Your task to perform on an android device: Open display settings Image 0: 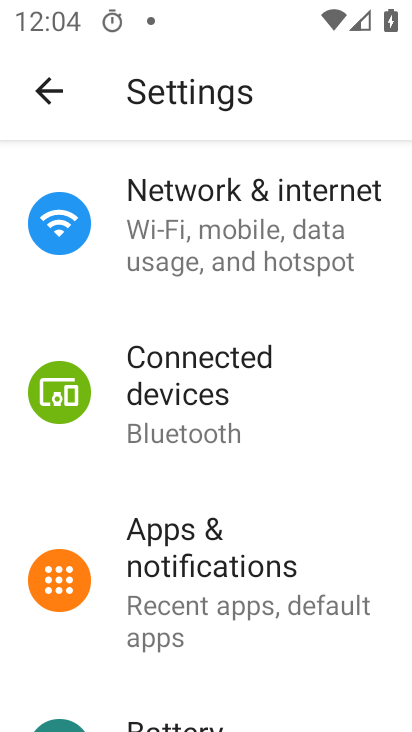
Step 0: drag from (378, 635) to (380, 498)
Your task to perform on an android device: Open display settings Image 1: 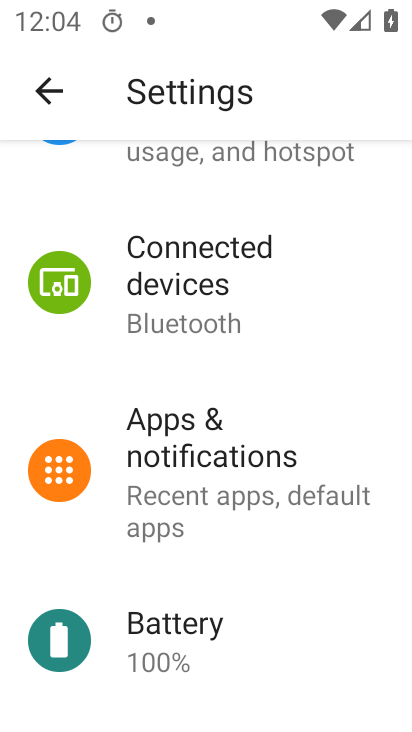
Step 1: drag from (386, 644) to (377, 514)
Your task to perform on an android device: Open display settings Image 2: 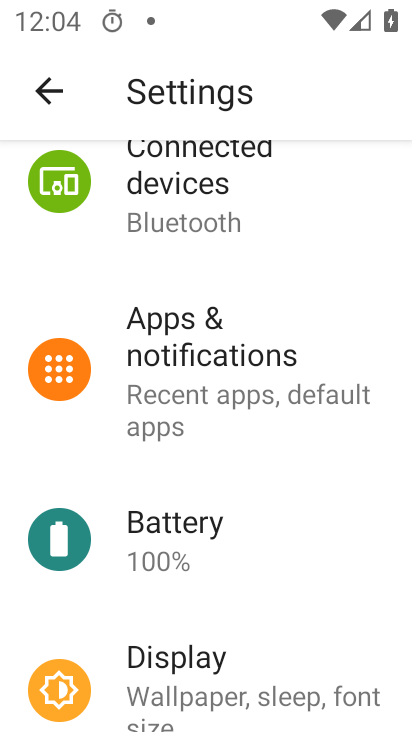
Step 2: drag from (375, 613) to (368, 481)
Your task to perform on an android device: Open display settings Image 3: 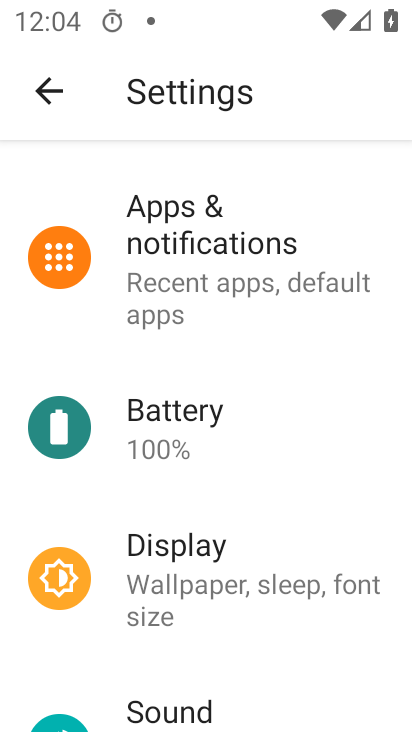
Step 3: drag from (368, 642) to (368, 528)
Your task to perform on an android device: Open display settings Image 4: 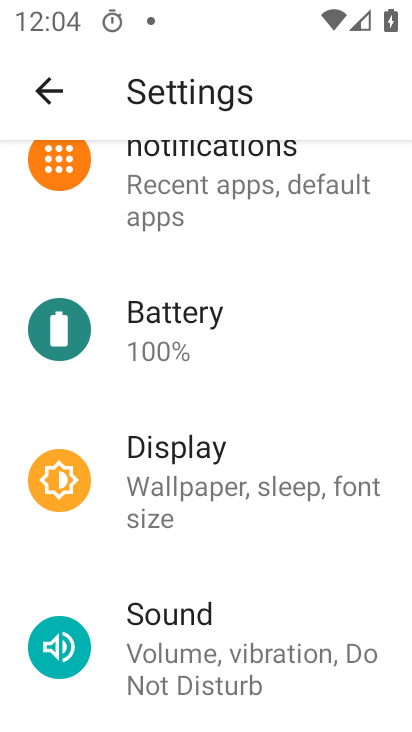
Step 4: drag from (363, 669) to (356, 559)
Your task to perform on an android device: Open display settings Image 5: 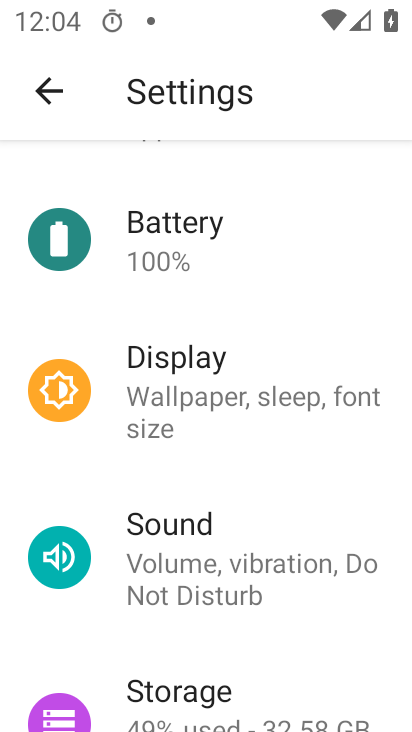
Step 5: drag from (354, 656) to (368, 509)
Your task to perform on an android device: Open display settings Image 6: 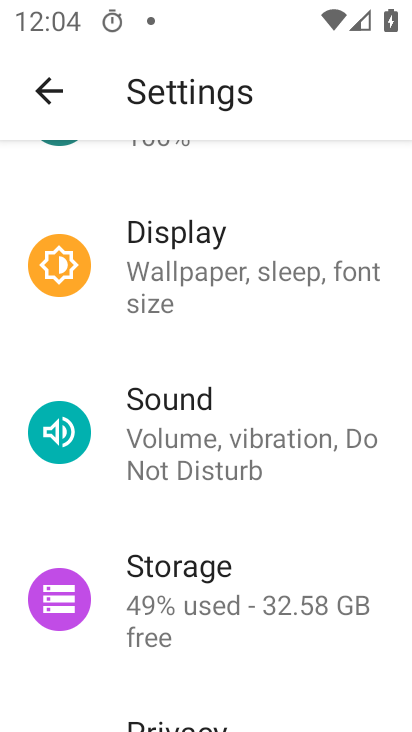
Step 6: drag from (389, 652) to (394, 521)
Your task to perform on an android device: Open display settings Image 7: 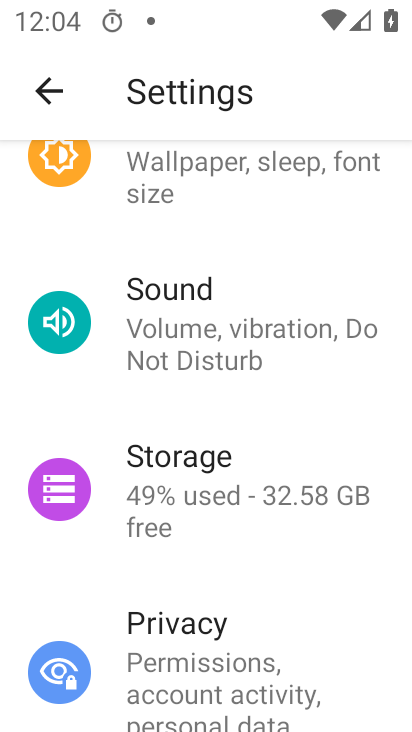
Step 7: drag from (365, 662) to (357, 524)
Your task to perform on an android device: Open display settings Image 8: 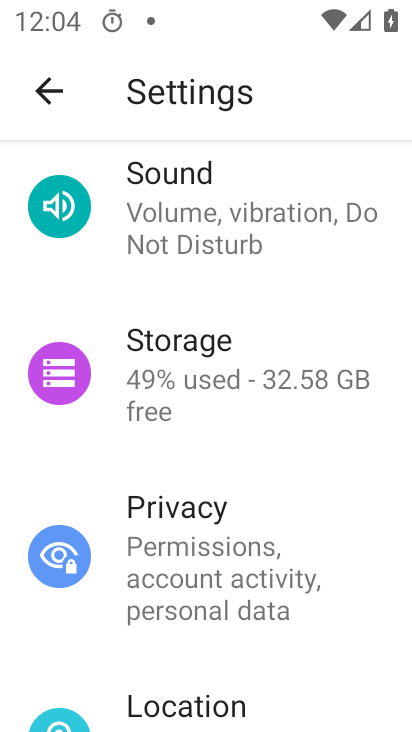
Step 8: drag from (376, 655) to (361, 490)
Your task to perform on an android device: Open display settings Image 9: 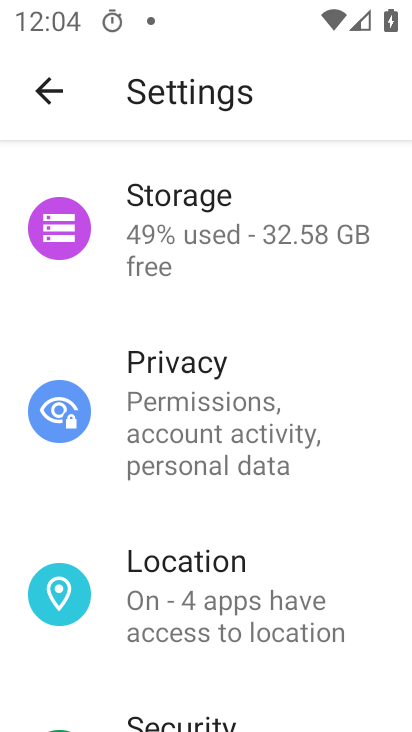
Step 9: drag from (363, 665) to (366, 452)
Your task to perform on an android device: Open display settings Image 10: 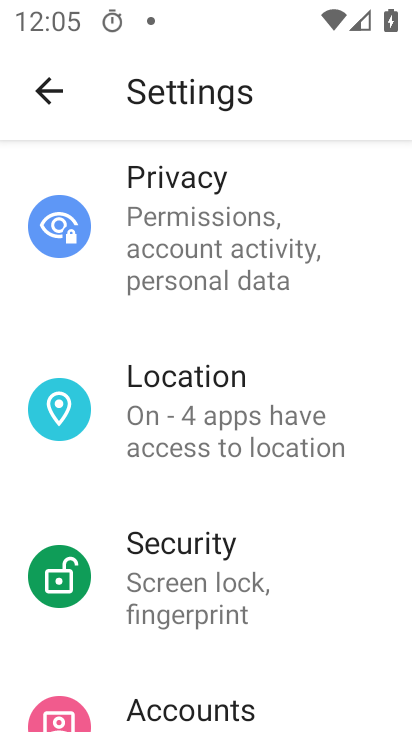
Step 10: drag from (371, 642) to (381, 331)
Your task to perform on an android device: Open display settings Image 11: 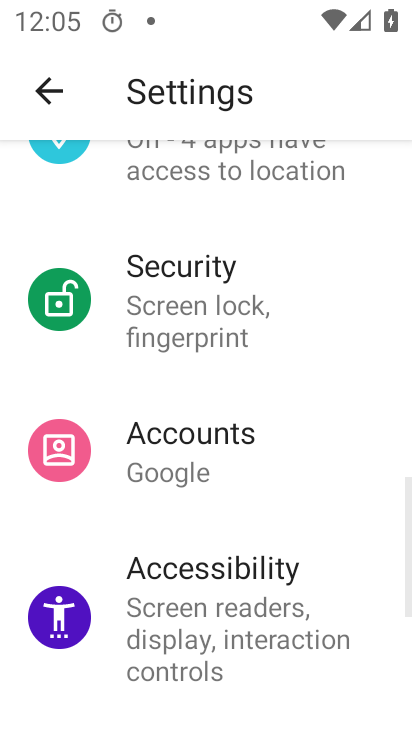
Step 11: drag from (380, 321) to (380, 506)
Your task to perform on an android device: Open display settings Image 12: 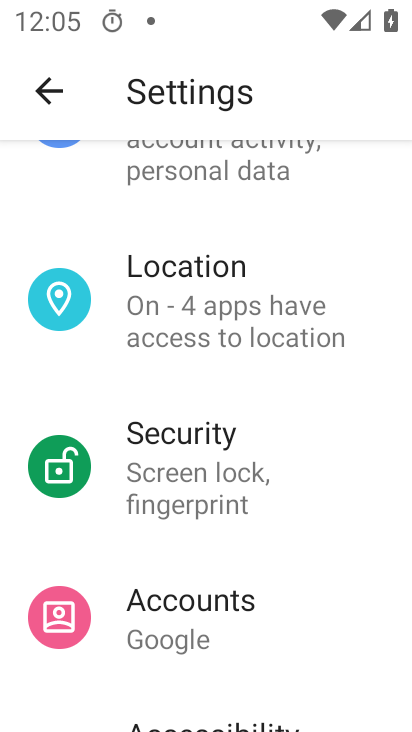
Step 12: drag from (384, 297) to (369, 453)
Your task to perform on an android device: Open display settings Image 13: 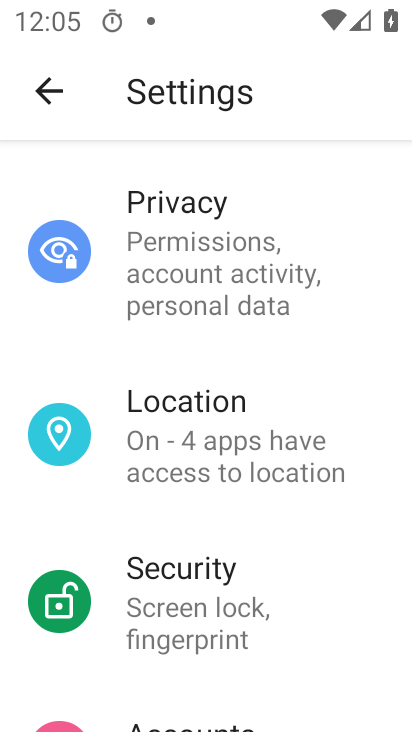
Step 13: drag from (371, 306) to (369, 457)
Your task to perform on an android device: Open display settings Image 14: 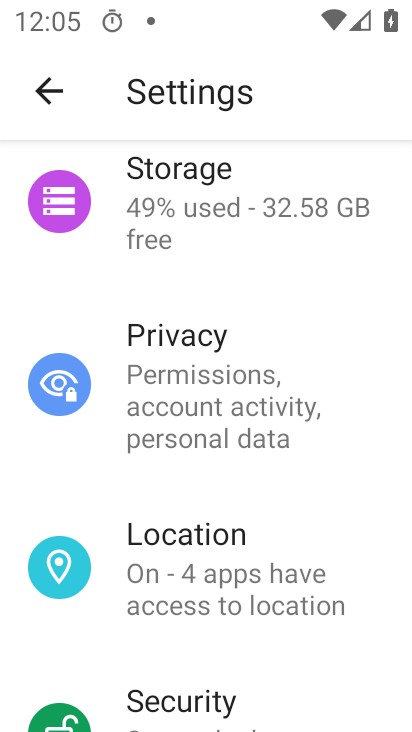
Step 14: drag from (369, 306) to (376, 466)
Your task to perform on an android device: Open display settings Image 15: 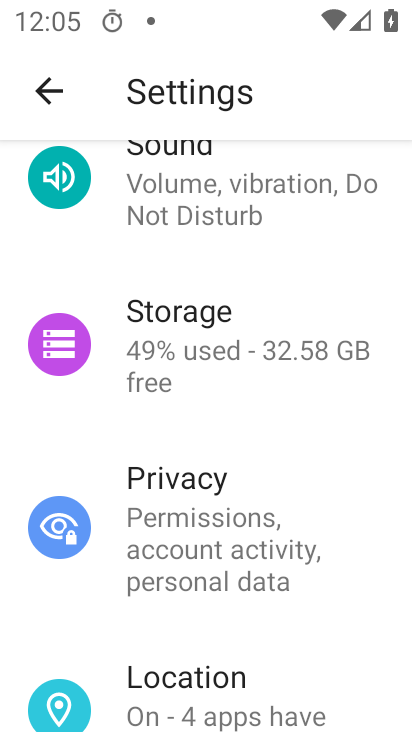
Step 15: drag from (389, 296) to (388, 488)
Your task to perform on an android device: Open display settings Image 16: 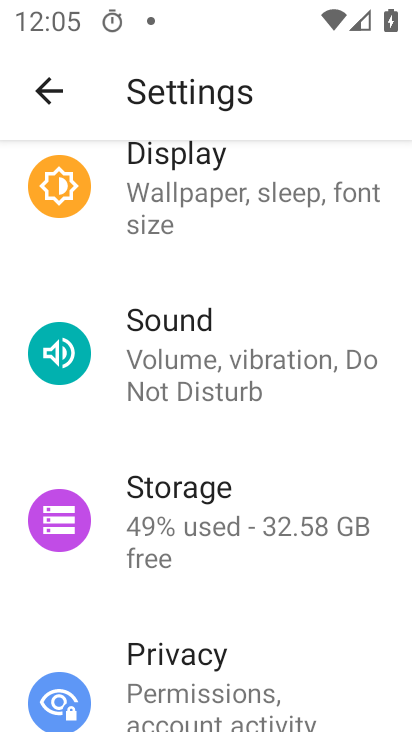
Step 16: drag from (320, 250) to (326, 431)
Your task to perform on an android device: Open display settings Image 17: 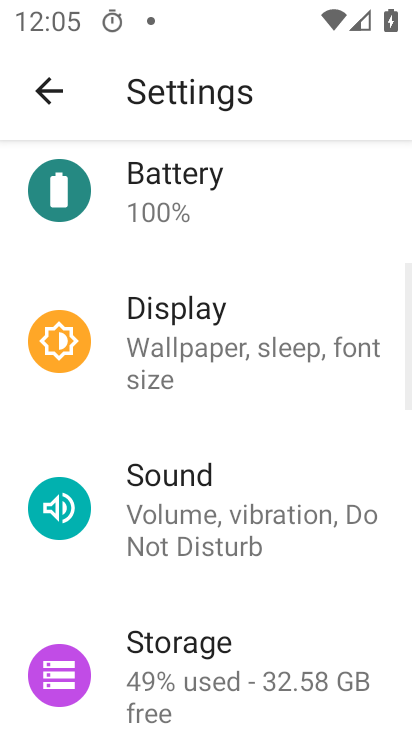
Step 17: click (286, 343)
Your task to perform on an android device: Open display settings Image 18: 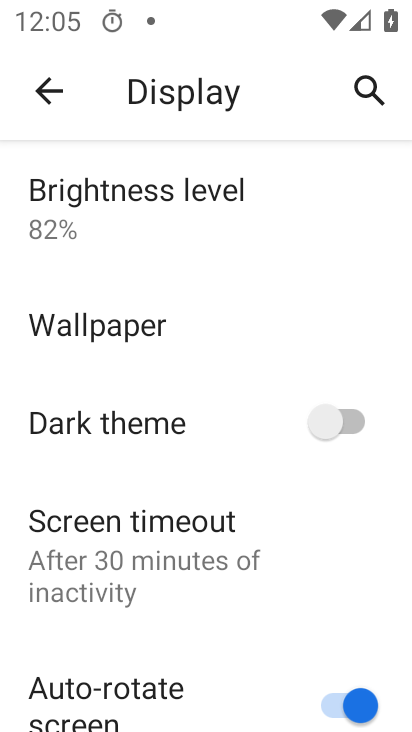
Step 18: task complete